Your task to perform on an android device: Clear the cart on ebay.com. Search for acer predator on ebay.com, select the first entry, and add it to the cart. Image 0: 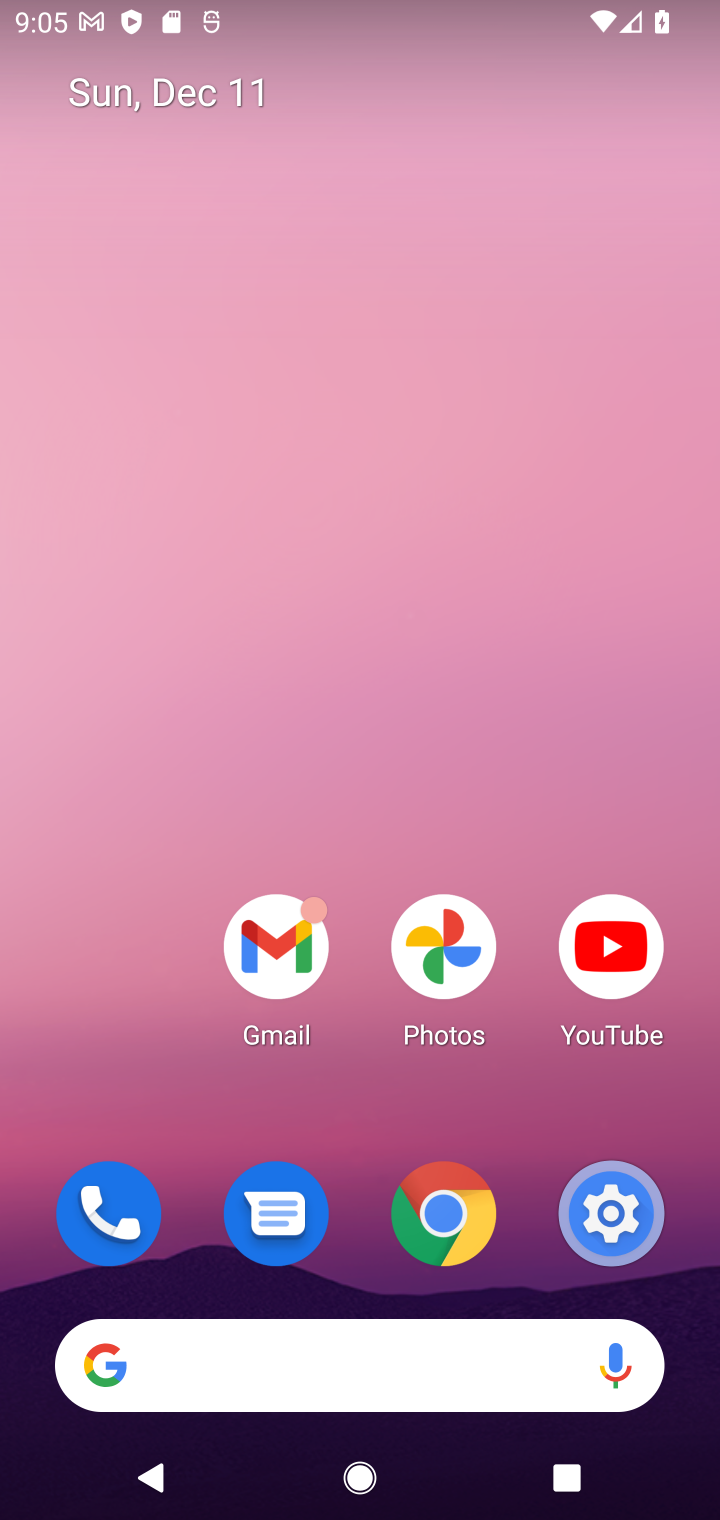
Step 0: click (342, 1362)
Your task to perform on an android device: Clear the cart on ebay.com. Search for acer predator on ebay.com, select the first entry, and add it to the cart. Image 1: 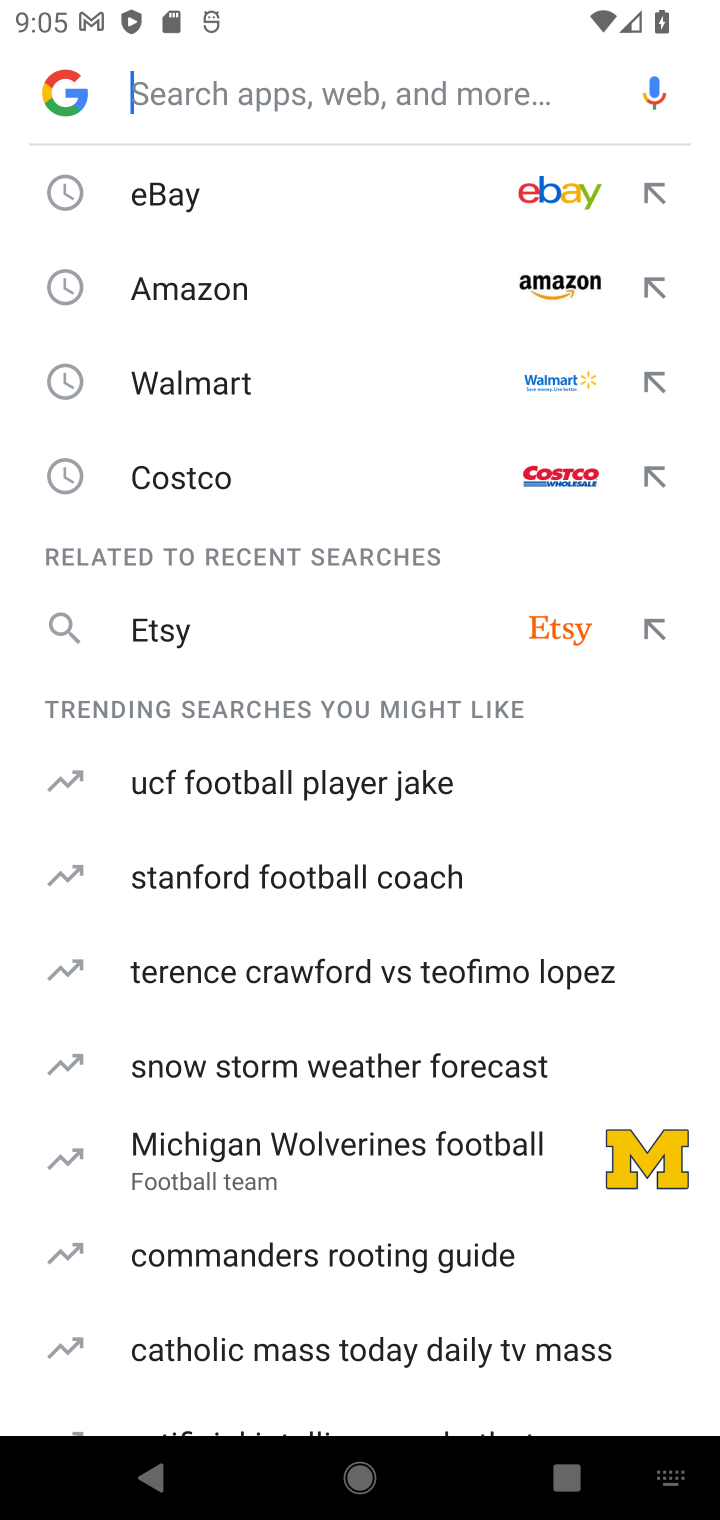
Step 1: type "ebay.com"
Your task to perform on an android device: Clear the cart on ebay.com. Search for acer predator on ebay.com, select the first entry, and add it to the cart. Image 2: 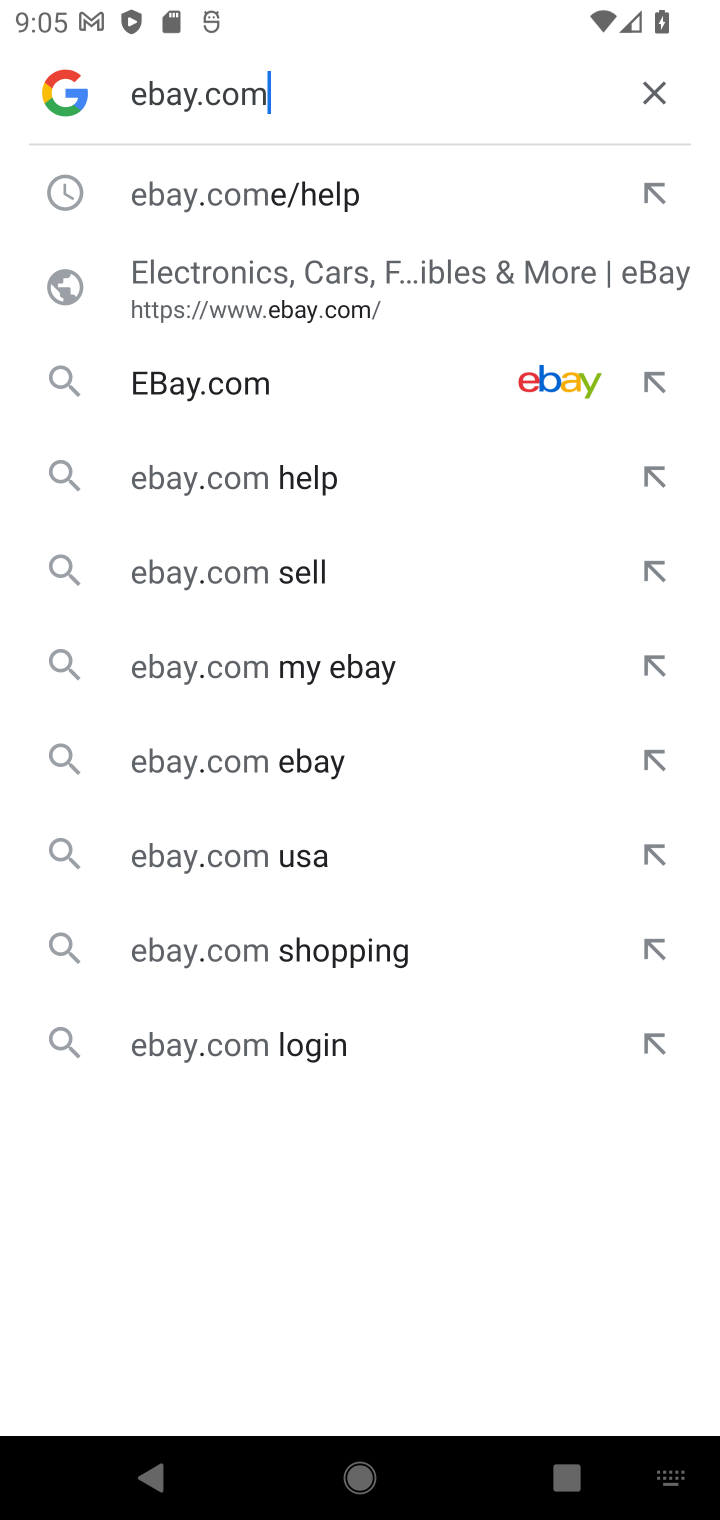
Step 2: click (360, 413)
Your task to perform on an android device: Clear the cart on ebay.com. Search for acer predator on ebay.com, select the first entry, and add it to the cart. Image 3: 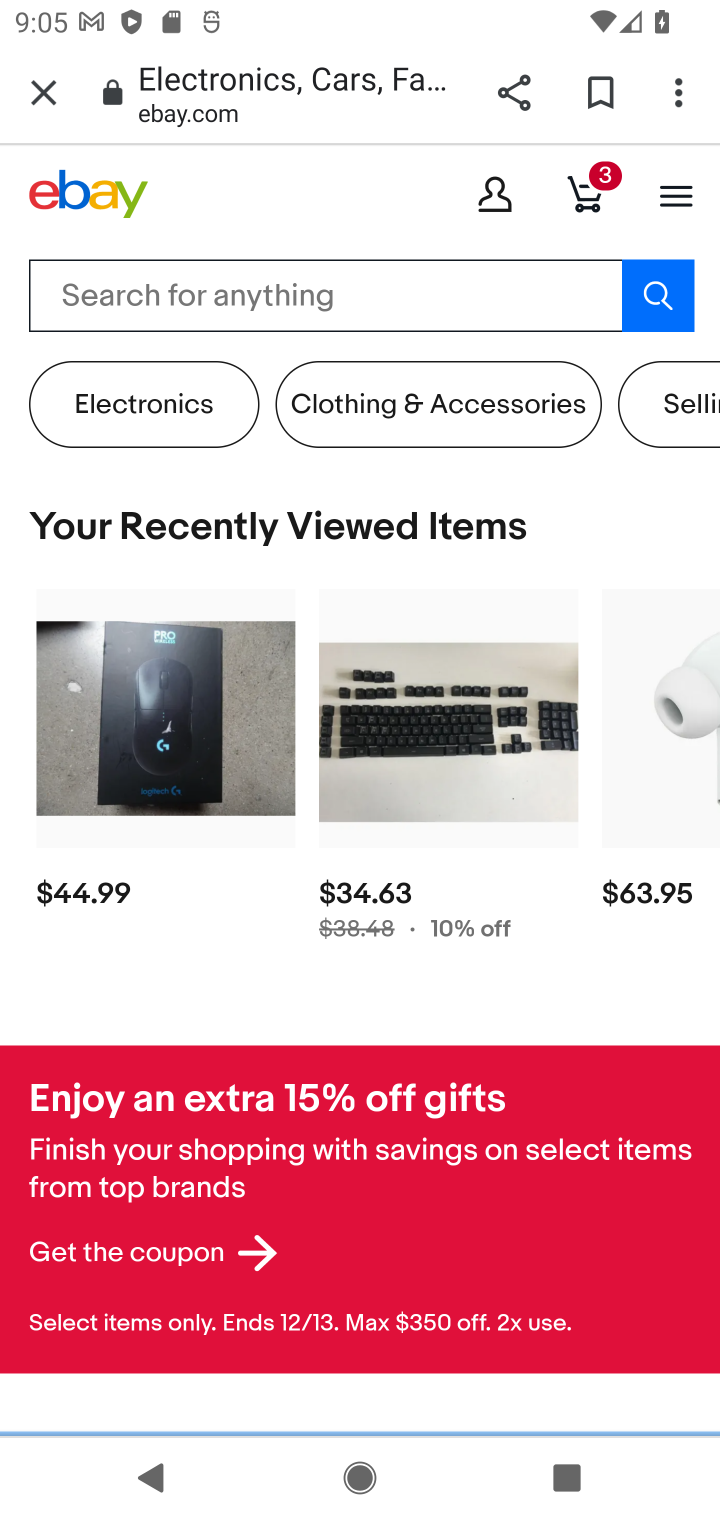
Step 3: click (414, 272)
Your task to perform on an android device: Clear the cart on ebay.com. Search for acer predator on ebay.com, select the first entry, and add it to the cart. Image 4: 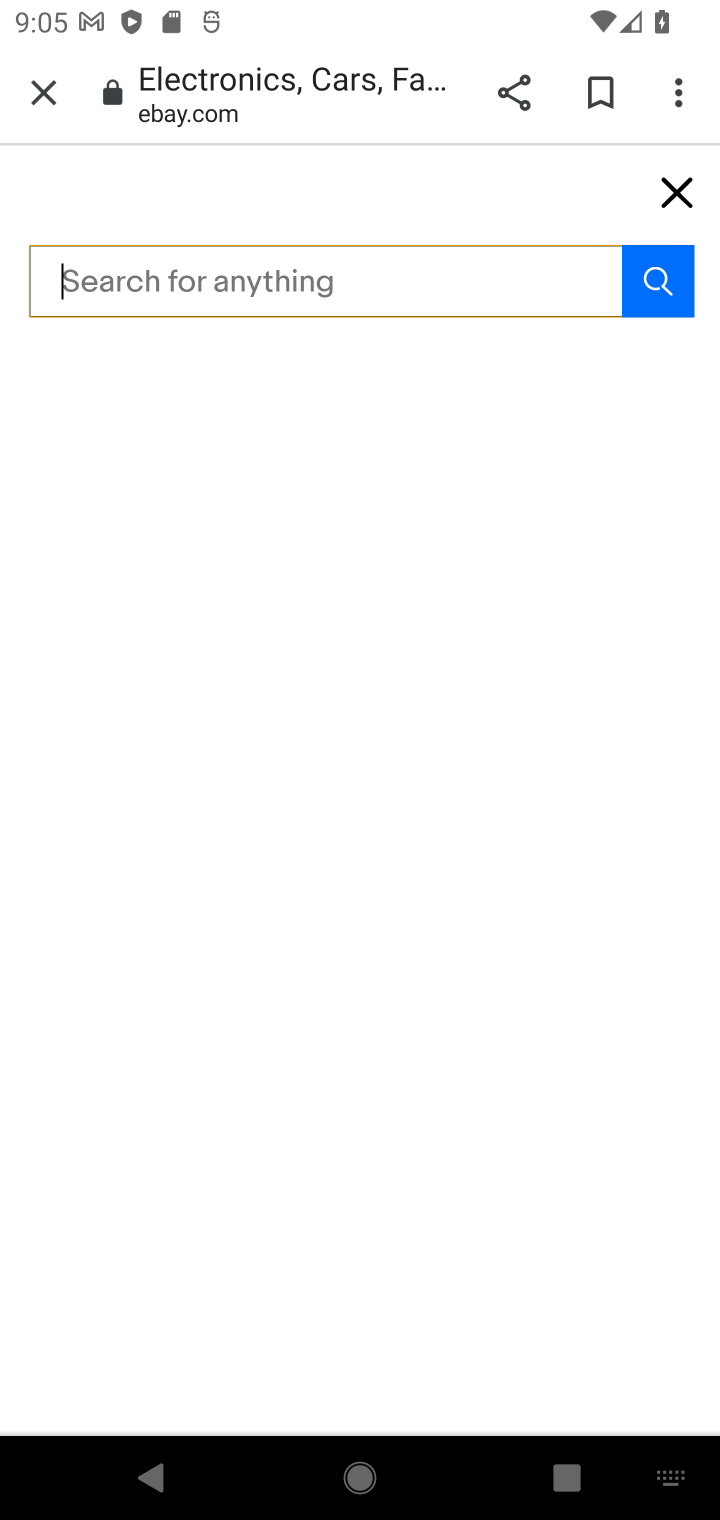
Step 4: type "acer predator"
Your task to perform on an android device: Clear the cart on ebay.com. Search for acer predator on ebay.com, select the first entry, and add it to the cart. Image 5: 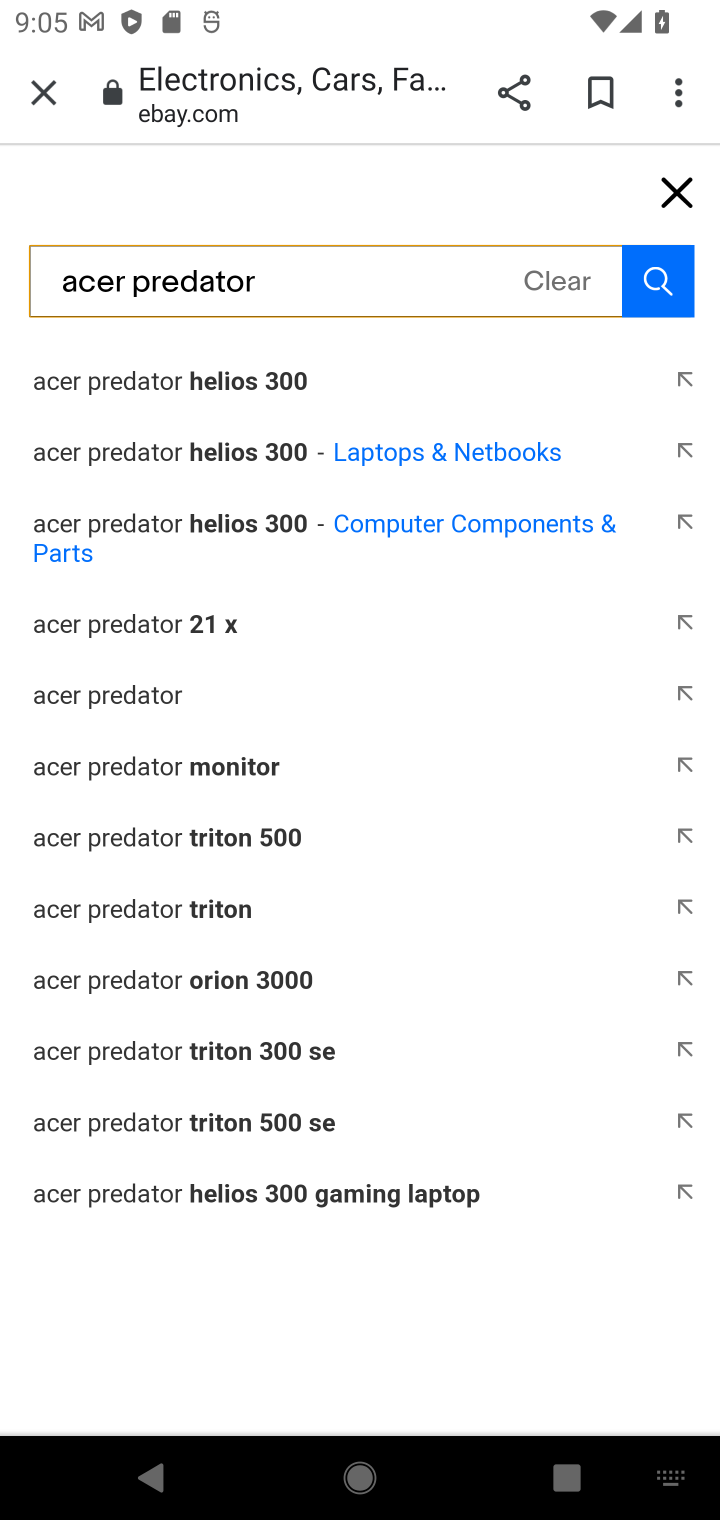
Step 5: click (655, 297)
Your task to perform on an android device: Clear the cart on ebay.com. Search for acer predator on ebay.com, select the first entry, and add it to the cart. Image 6: 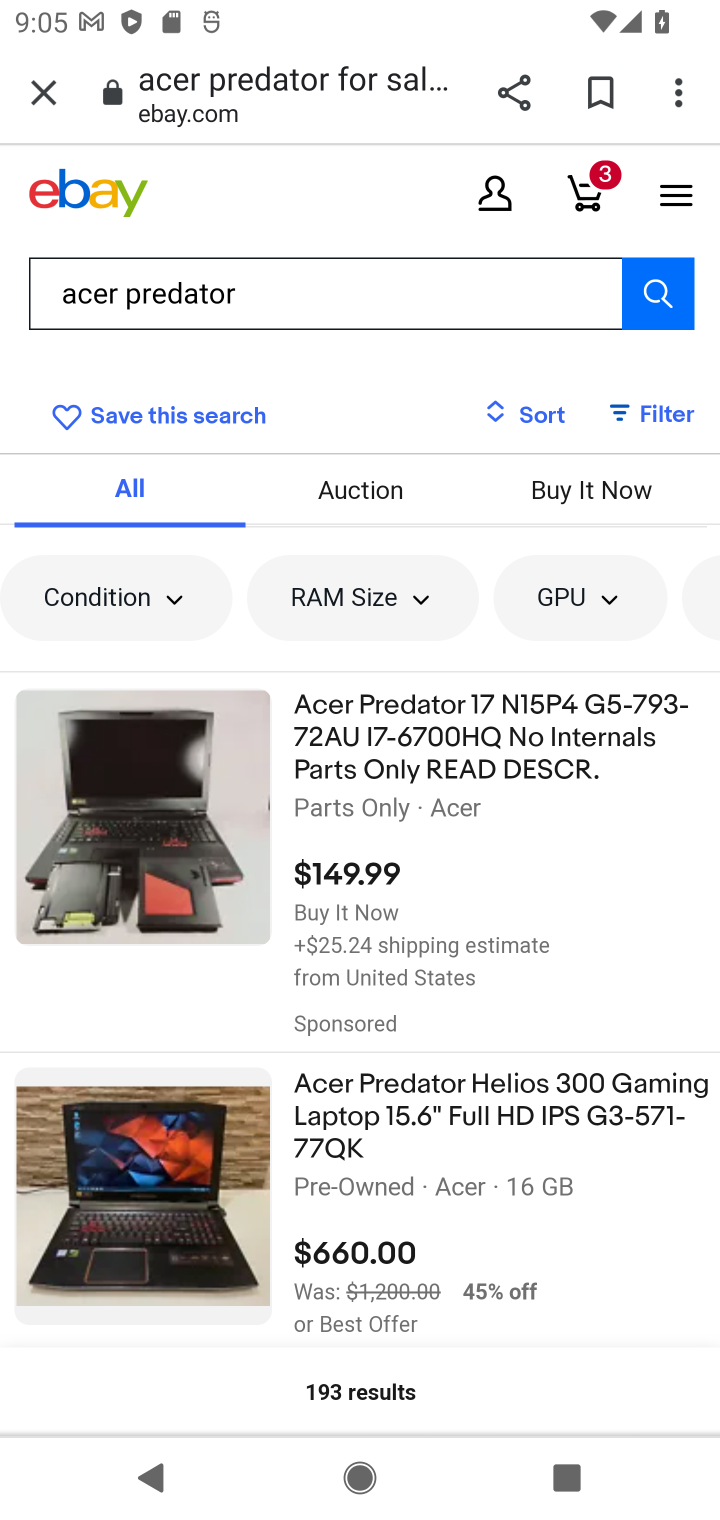
Step 6: click (397, 806)
Your task to perform on an android device: Clear the cart on ebay.com. Search for acer predator on ebay.com, select the first entry, and add it to the cart. Image 7: 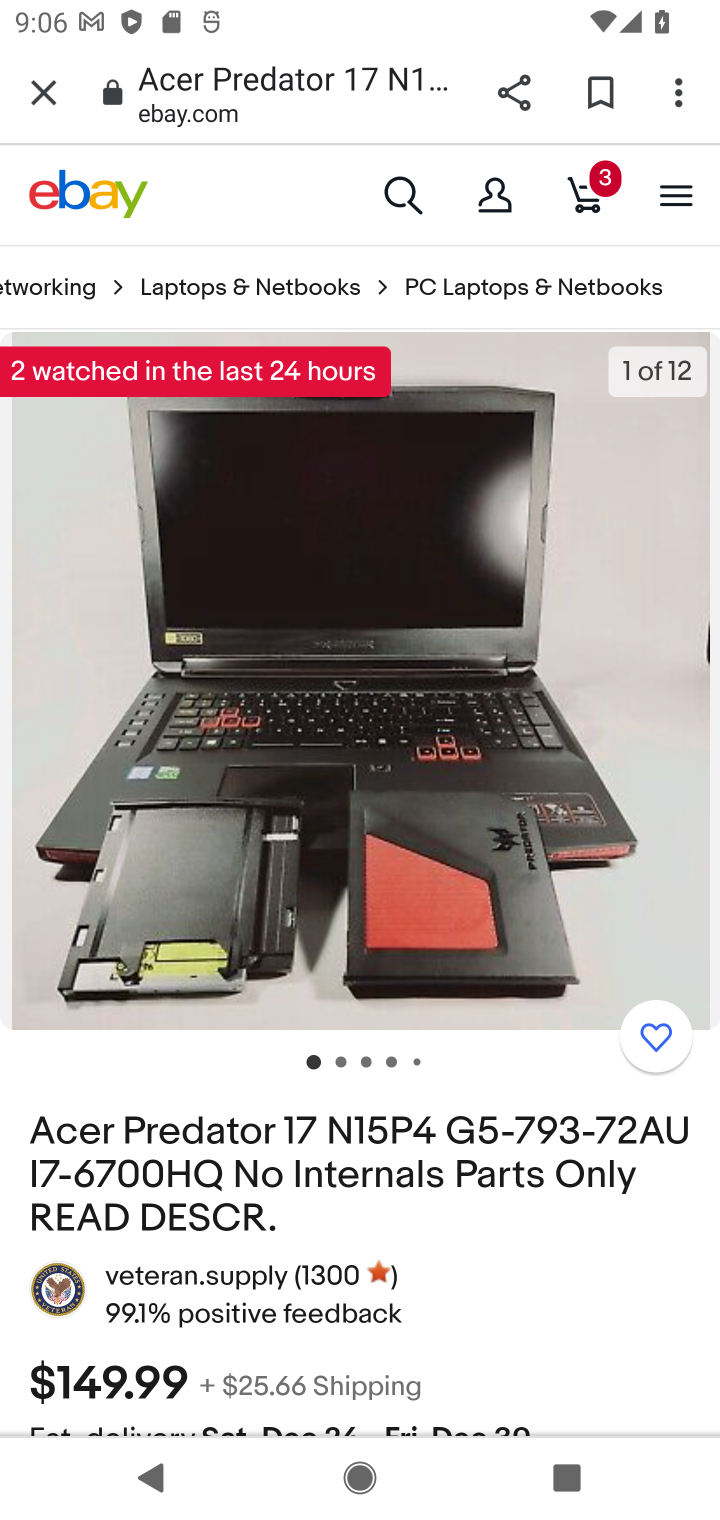
Step 7: drag from (431, 1191) to (391, 555)
Your task to perform on an android device: Clear the cart on ebay.com. Search for acer predator on ebay.com, select the first entry, and add it to the cart. Image 8: 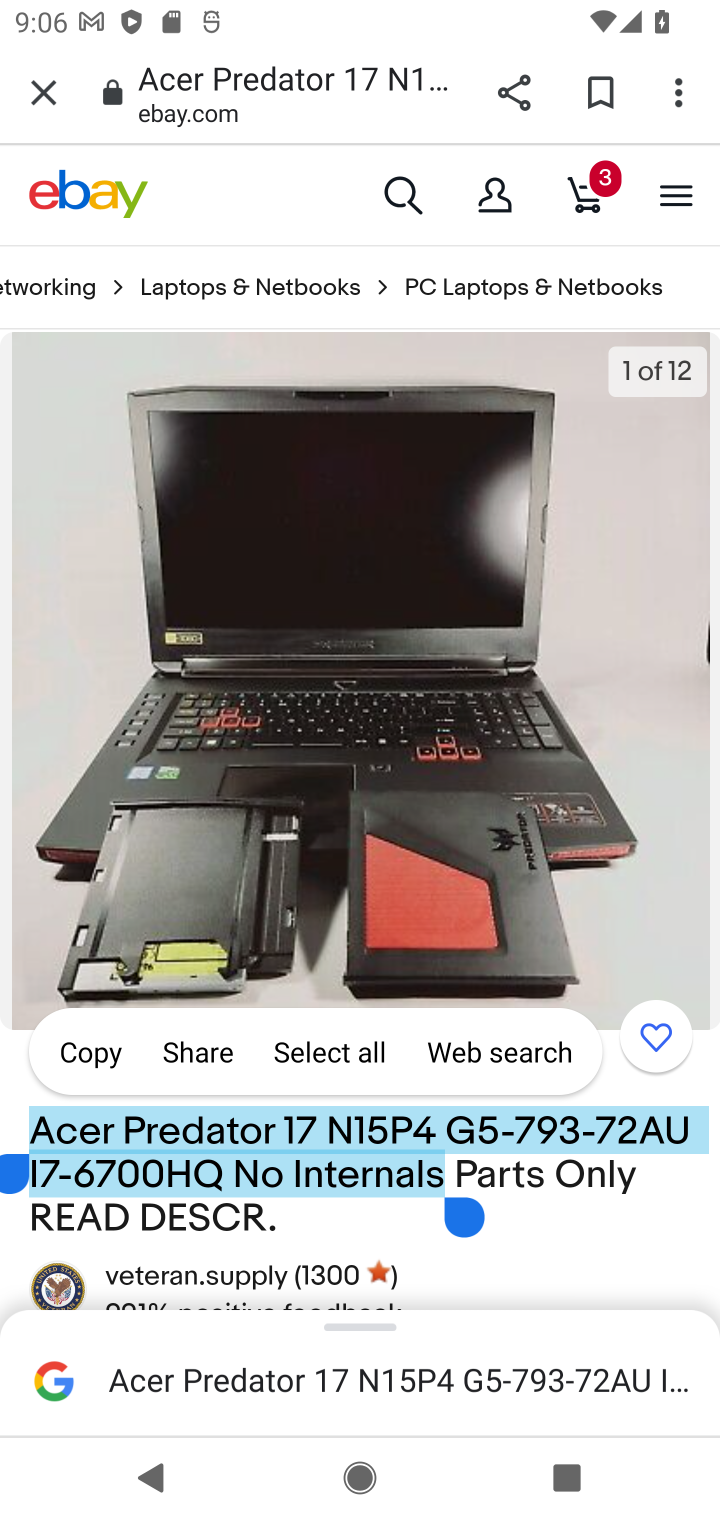
Step 8: click (572, 1253)
Your task to perform on an android device: Clear the cart on ebay.com. Search for acer predator on ebay.com, select the first entry, and add it to the cart. Image 9: 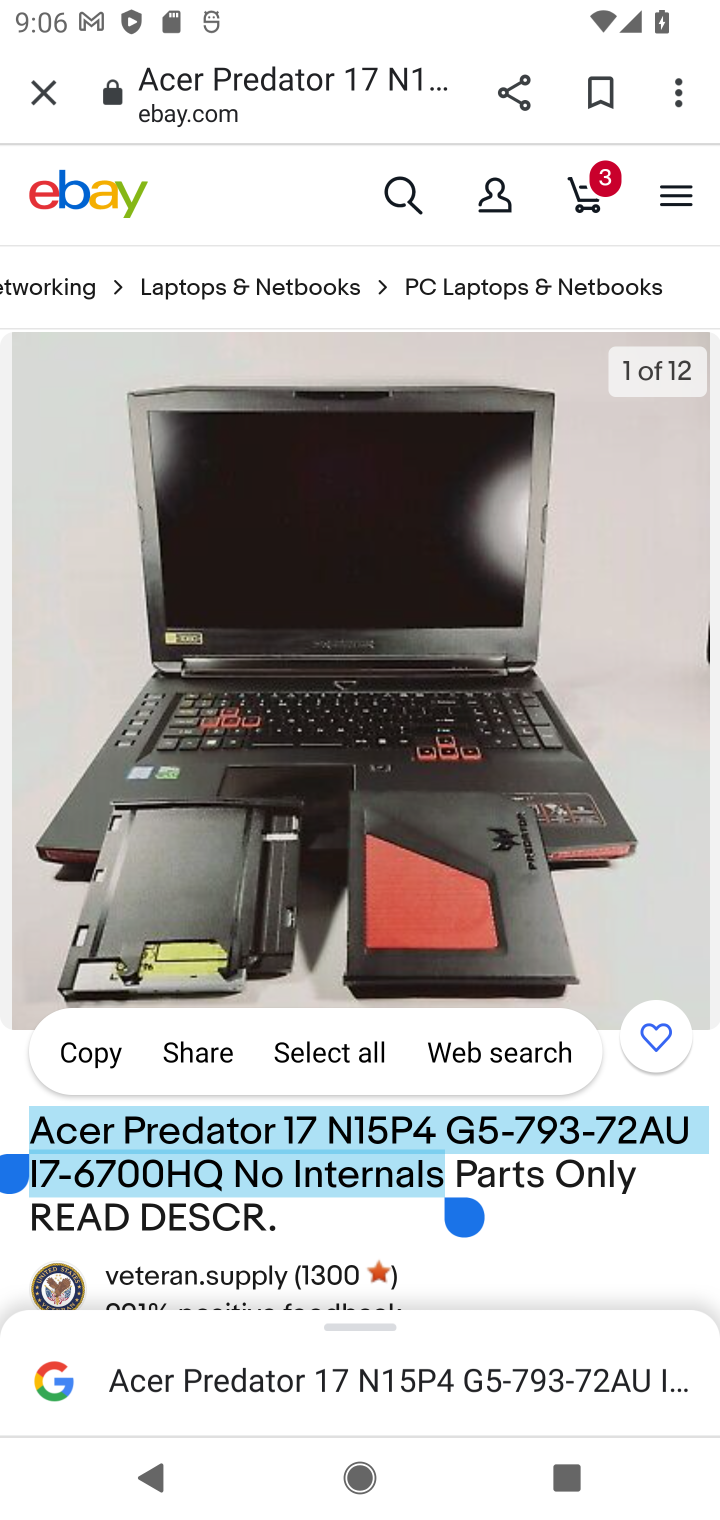
Step 9: task complete